Your task to perform on an android device: What's the weather? Image 0: 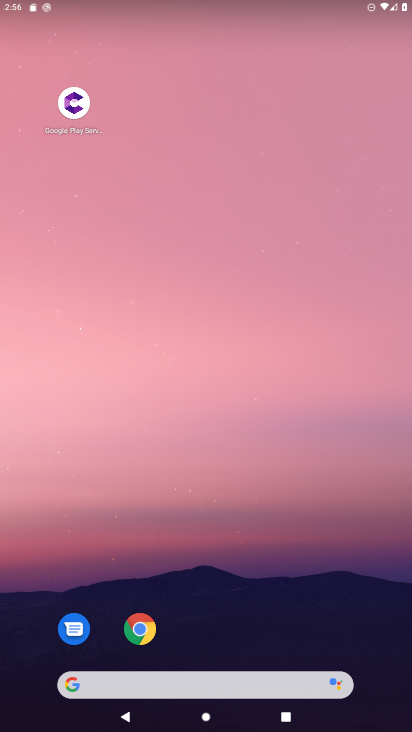
Step 0: drag from (261, 601) to (243, 34)
Your task to perform on an android device: What's the weather? Image 1: 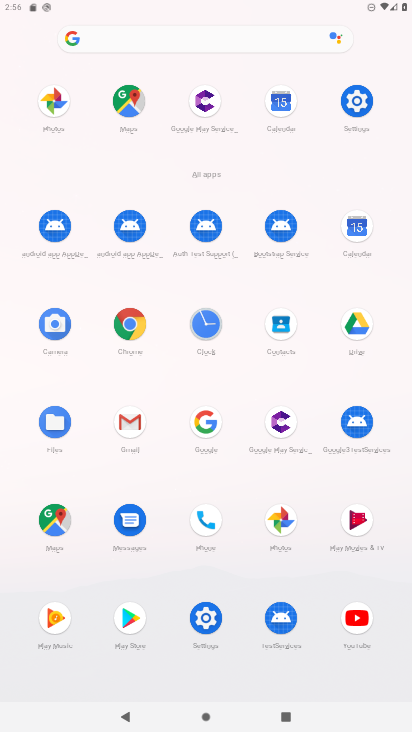
Step 1: click (205, 425)
Your task to perform on an android device: What's the weather? Image 2: 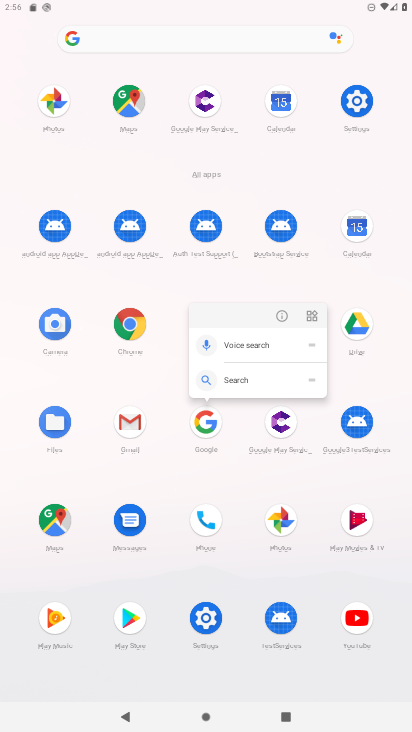
Step 2: click (205, 425)
Your task to perform on an android device: What's the weather? Image 3: 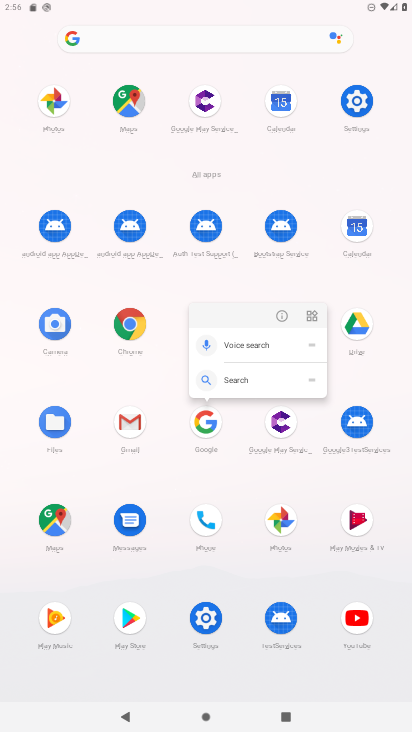
Step 3: click (205, 425)
Your task to perform on an android device: What's the weather? Image 4: 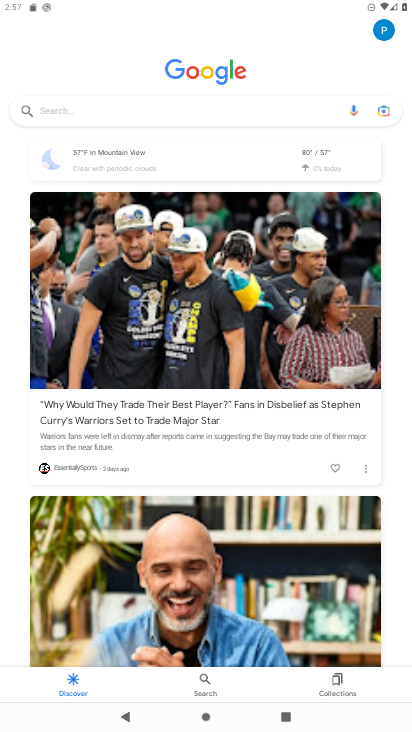
Step 4: click (157, 166)
Your task to perform on an android device: What's the weather? Image 5: 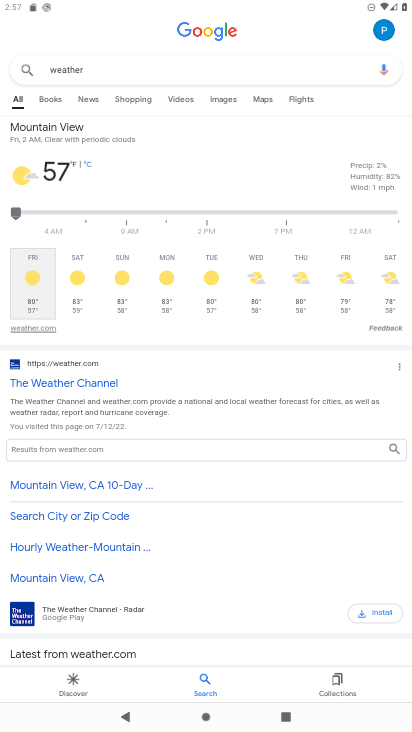
Step 5: task complete